Your task to perform on an android device: Open notification settings Image 0: 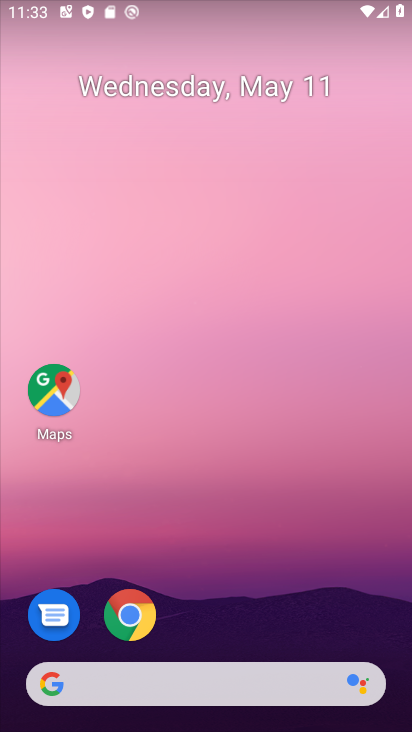
Step 0: drag from (232, 574) to (148, 67)
Your task to perform on an android device: Open notification settings Image 1: 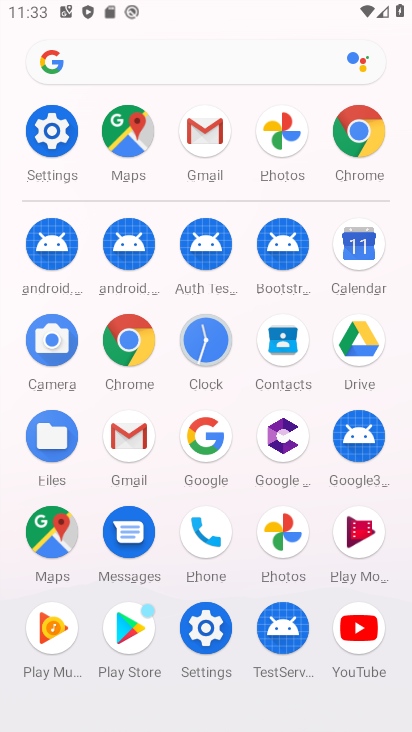
Step 1: click (49, 140)
Your task to perform on an android device: Open notification settings Image 2: 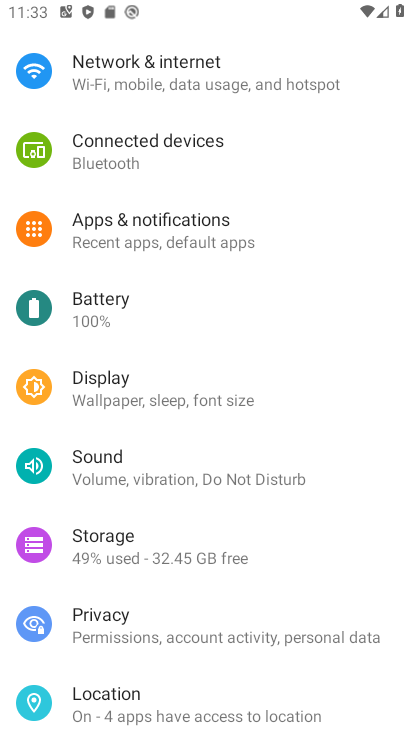
Step 2: click (198, 230)
Your task to perform on an android device: Open notification settings Image 3: 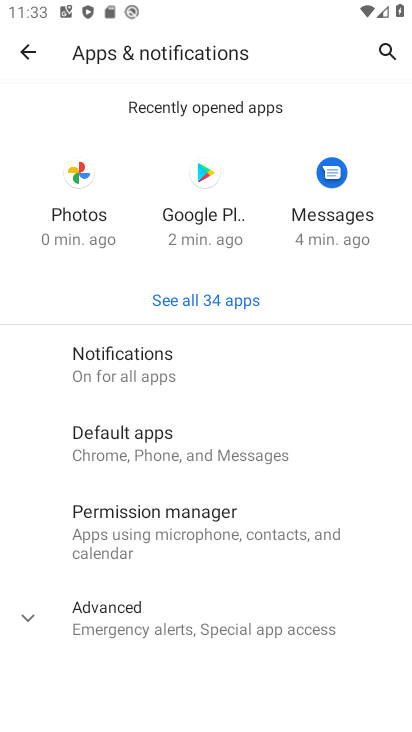
Step 3: drag from (208, 575) to (174, 283)
Your task to perform on an android device: Open notification settings Image 4: 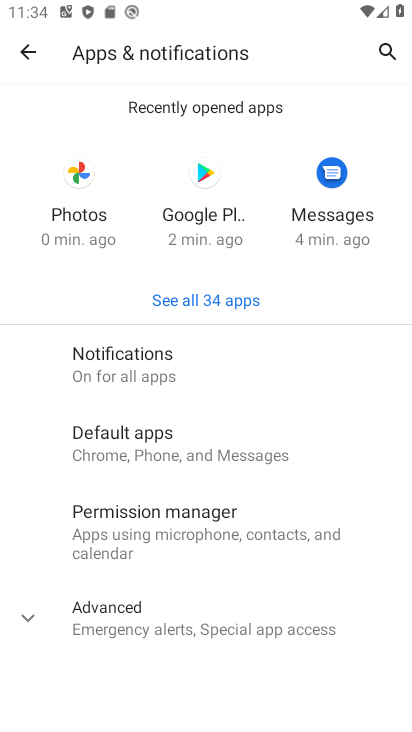
Step 4: click (146, 366)
Your task to perform on an android device: Open notification settings Image 5: 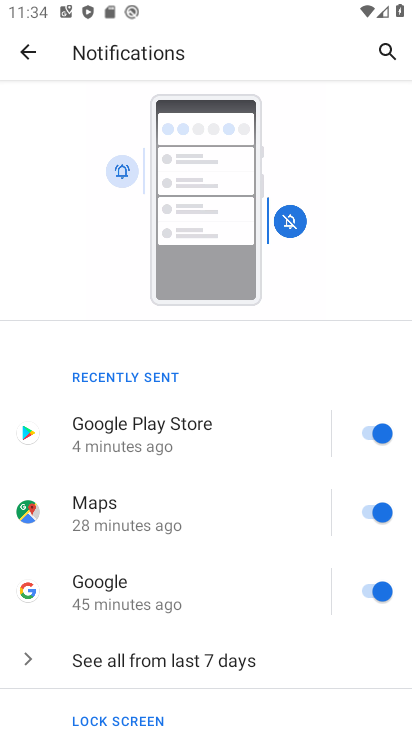
Step 5: task complete